Your task to perform on an android device: change the clock display to digital Image 0: 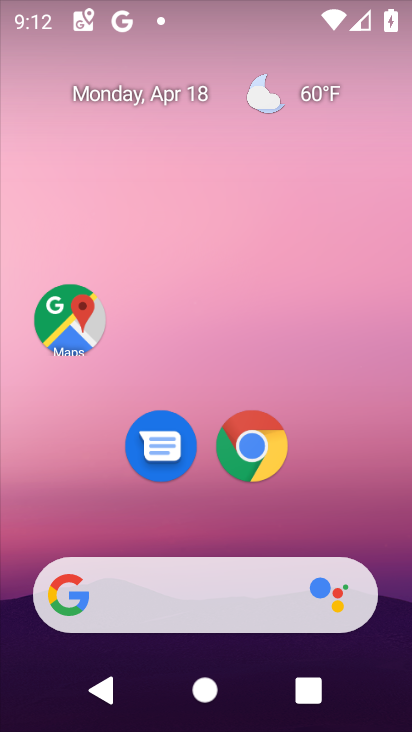
Step 0: drag from (399, 510) to (382, 220)
Your task to perform on an android device: change the clock display to digital Image 1: 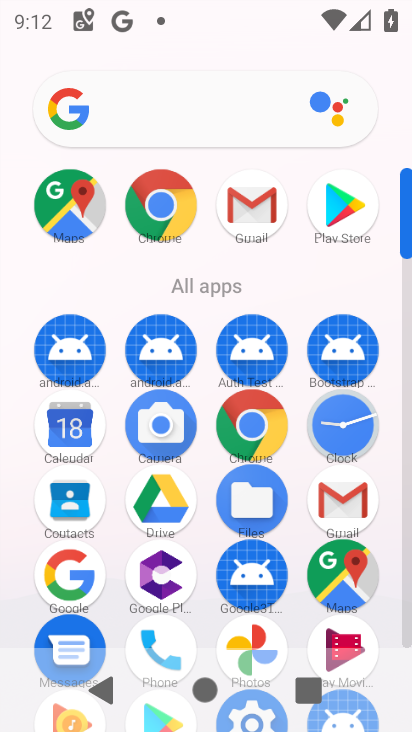
Step 1: click (350, 430)
Your task to perform on an android device: change the clock display to digital Image 2: 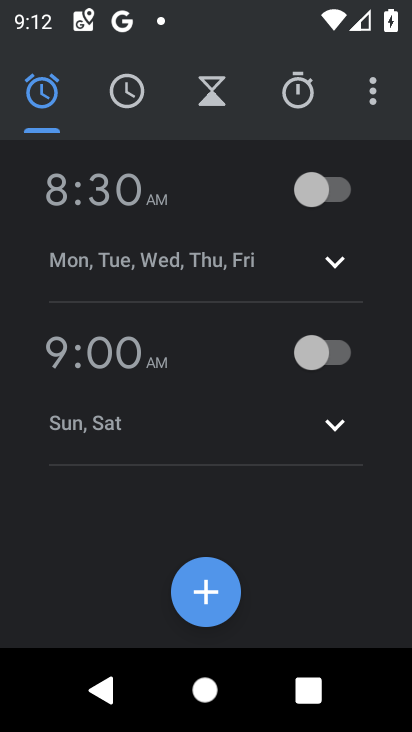
Step 2: click (370, 93)
Your task to perform on an android device: change the clock display to digital Image 3: 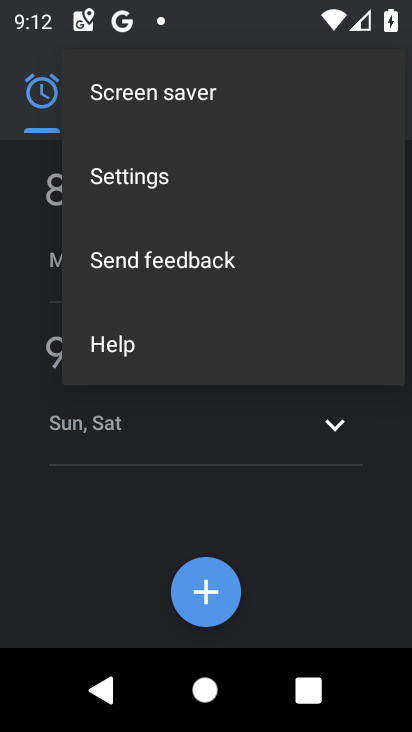
Step 3: click (172, 182)
Your task to perform on an android device: change the clock display to digital Image 4: 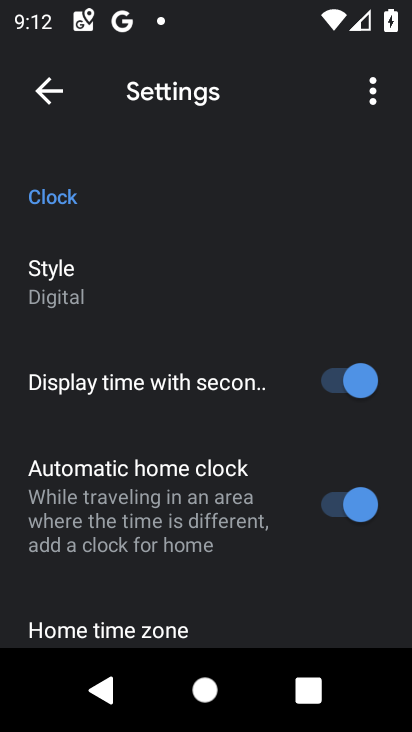
Step 4: task complete